Your task to perform on an android device: uninstall "Spotify" Image 0: 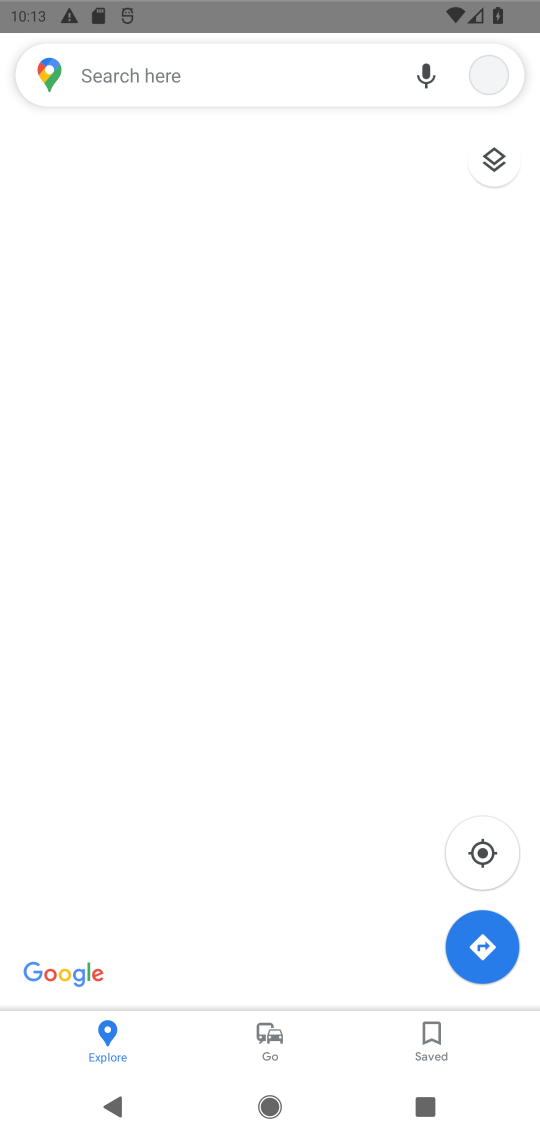
Step 0: press home button
Your task to perform on an android device: uninstall "Spotify" Image 1: 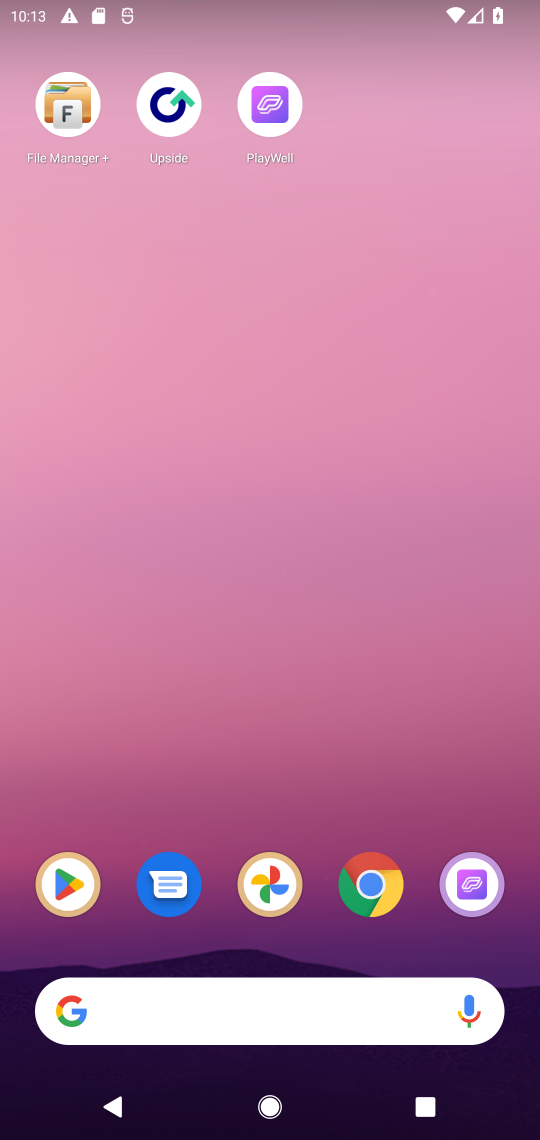
Step 1: click (72, 885)
Your task to perform on an android device: uninstall "Spotify" Image 2: 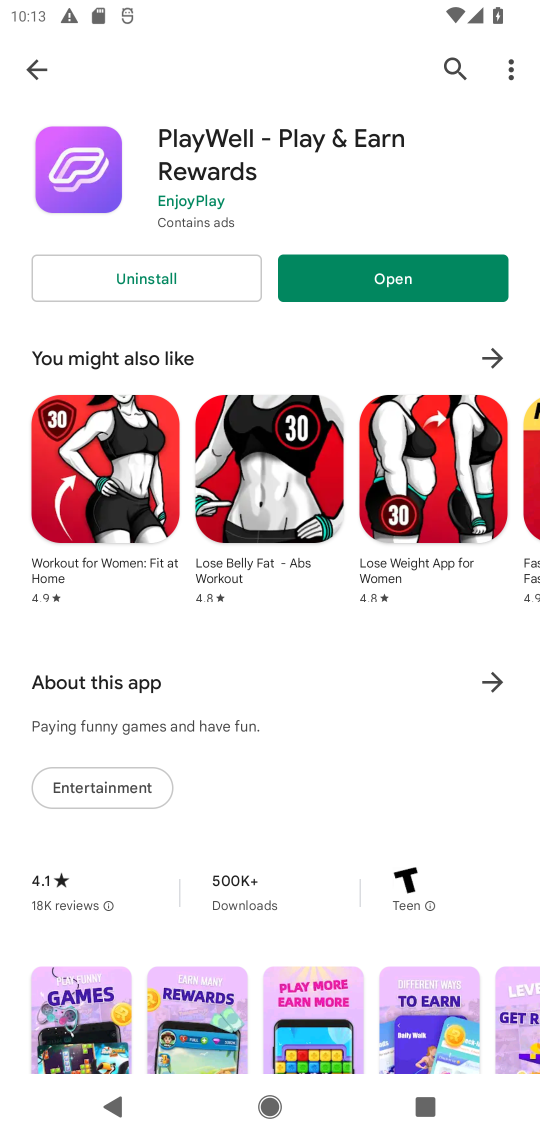
Step 2: click (455, 68)
Your task to perform on an android device: uninstall "Spotify" Image 3: 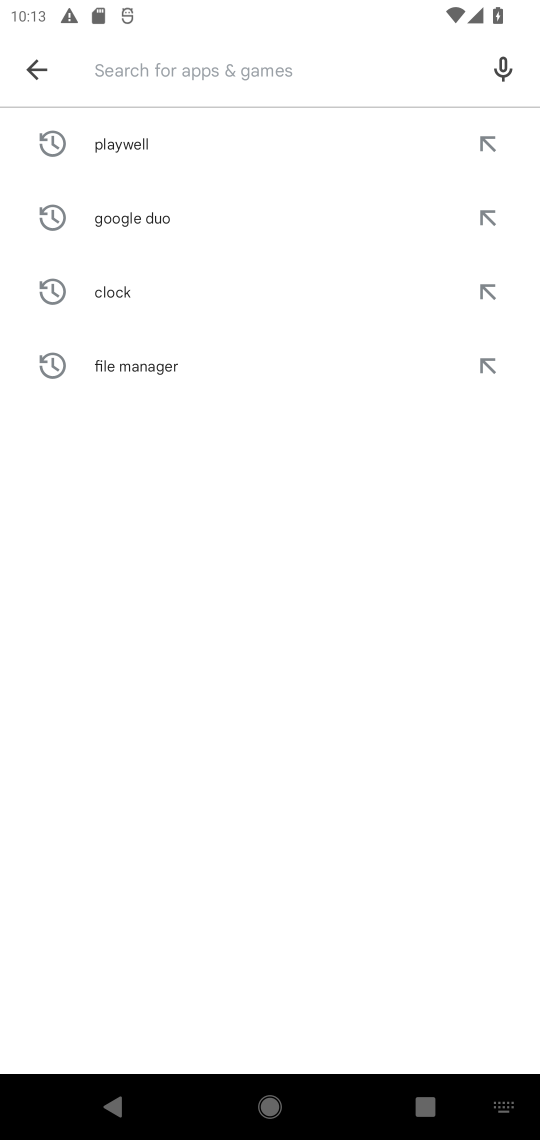
Step 3: type "spotify"
Your task to perform on an android device: uninstall "Spotify" Image 4: 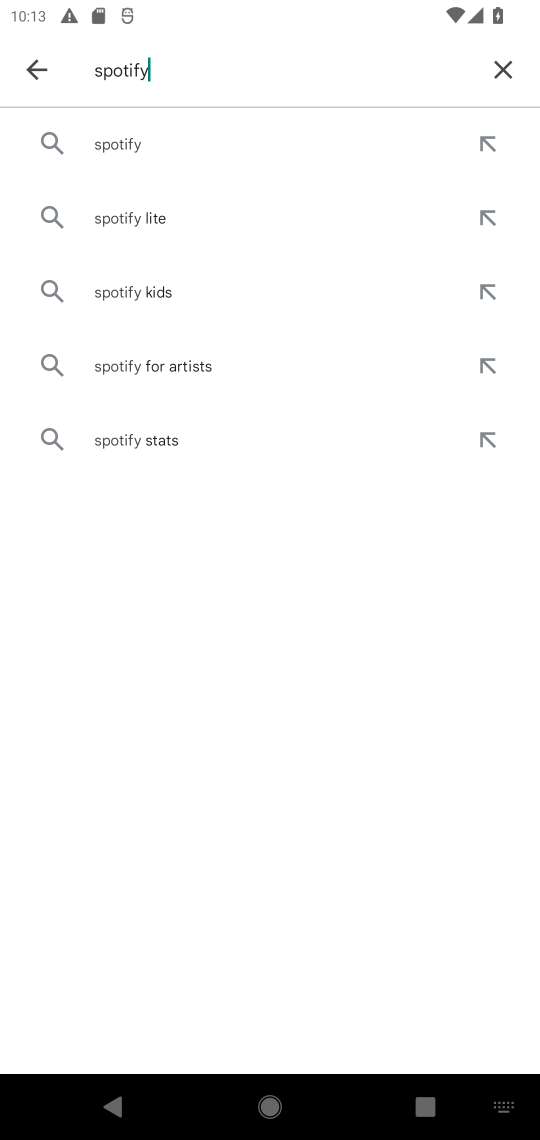
Step 4: click (282, 145)
Your task to perform on an android device: uninstall "Spotify" Image 5: 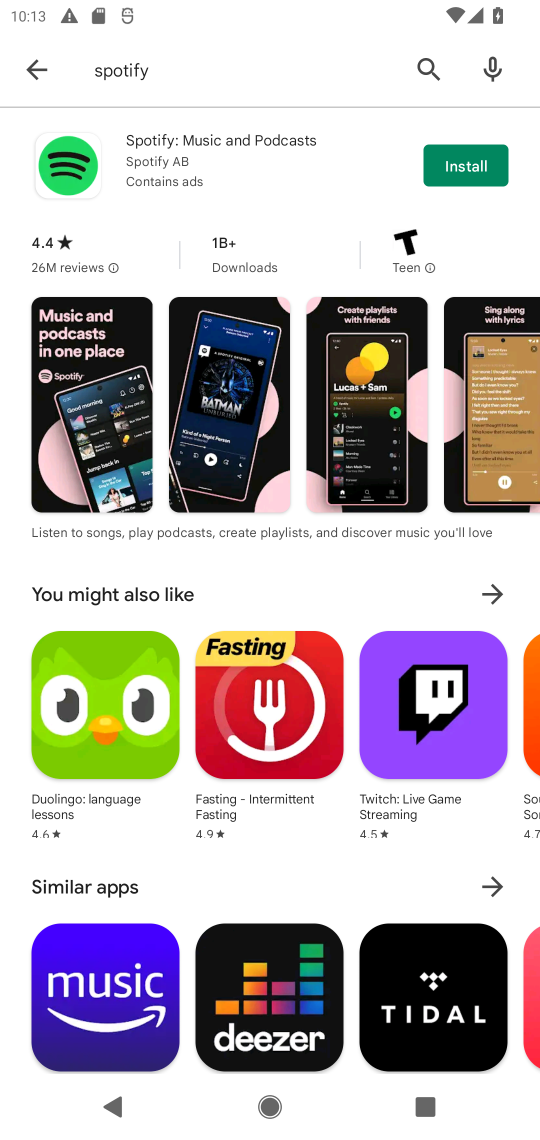
Step 5: click (282, 145)
Your task to perform on an android device: uninstall "Spotify" Image 6: 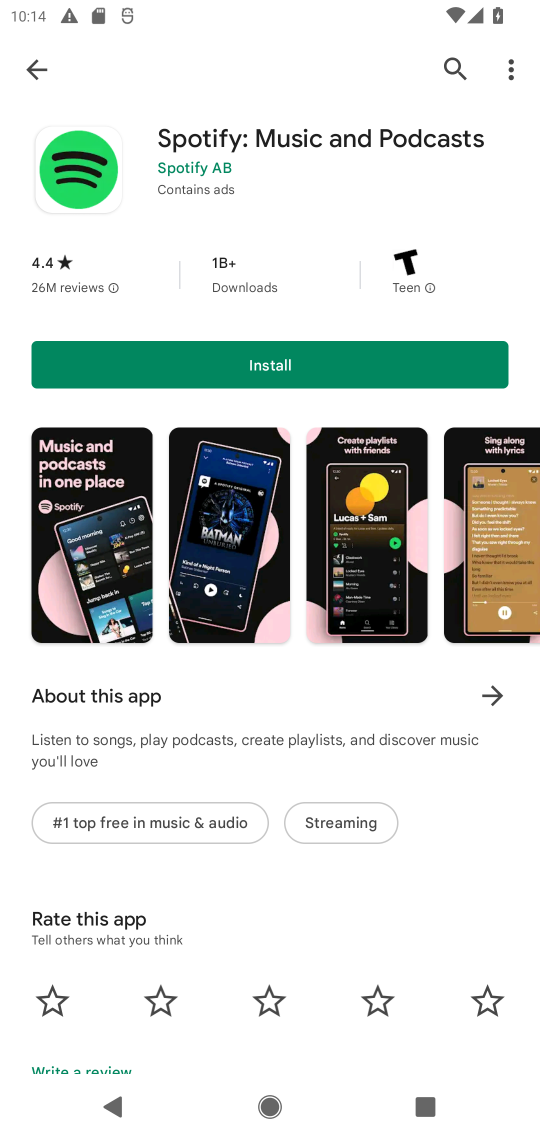
Step 6: task complete